Your task to perform on an android device: Open Youtube and go to "Your channel" Image 0: 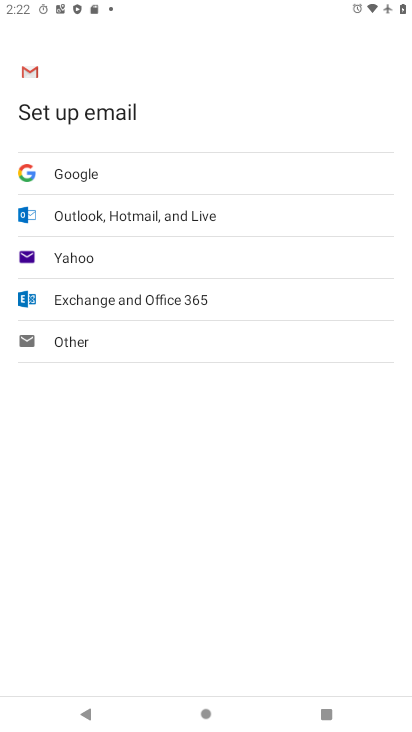
Step 0: press home button
Your task to perform on an android device: Open Youtube and go to "Your channel" Image 1: 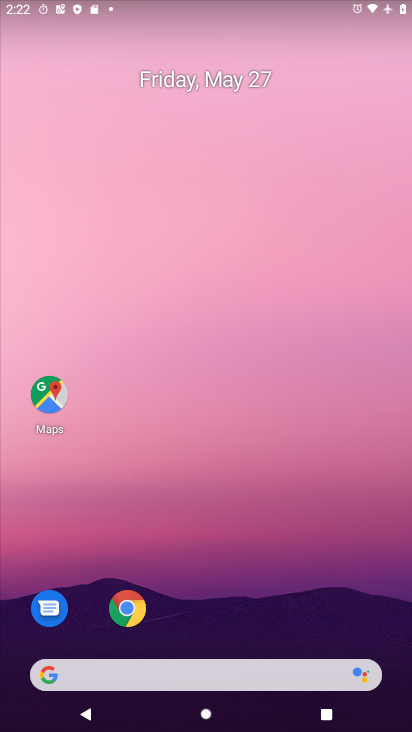
Step 1: drag from (192, 663) to (320, 65)
Your task to perform on an android device: Open Youtube and go to "Your channel" Image 2: 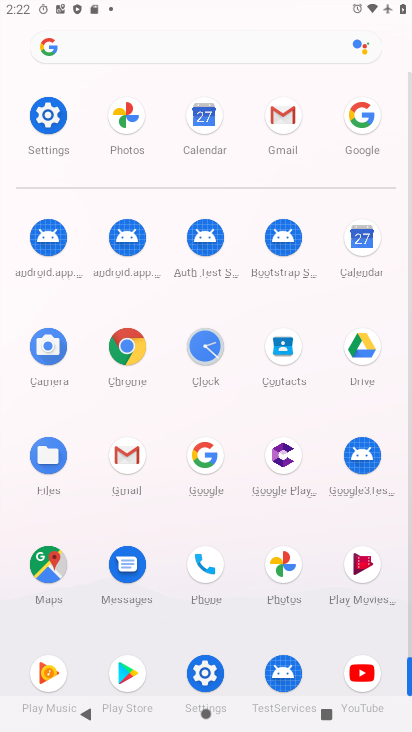
Step 2: click (365, 679)
Your task to perform on an android device: Open Youtube and go to "Your channel" Image 3: 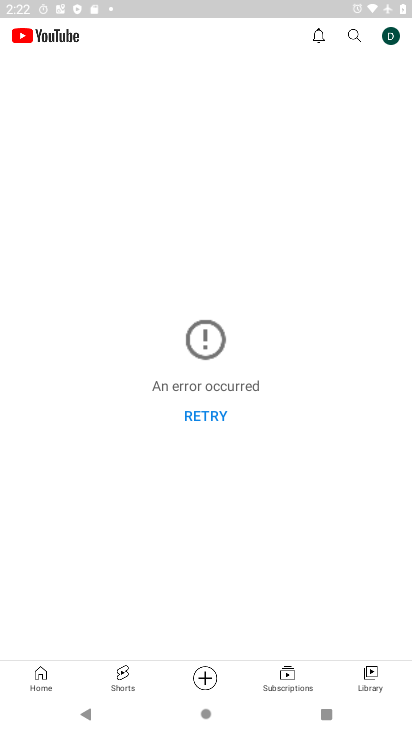
Step 3: click (387, 34)
Your task to perform on an android device: Open Youtube and go to "Your channel" Image 4: 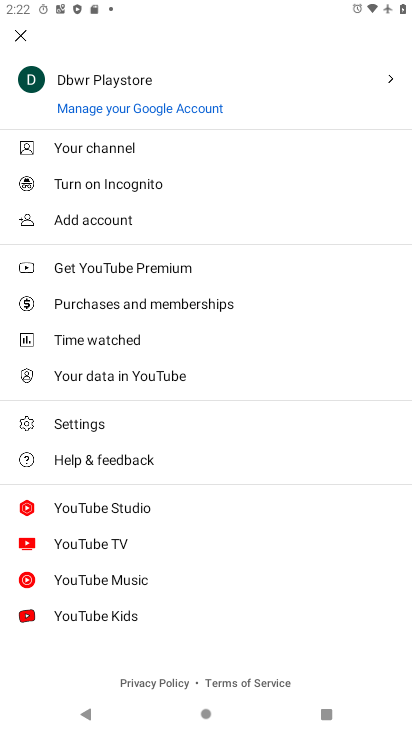
Step 4: click (121, 149)
Your task to perform on an android device: Open Youtube and go to "Your channel" Image 5: 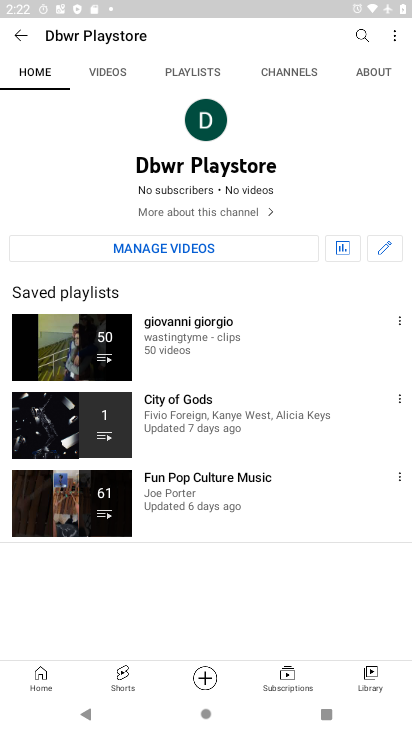
Step 5: task complete